Your task to perform on an android device: turn off data saver in the chrome app Image 0: 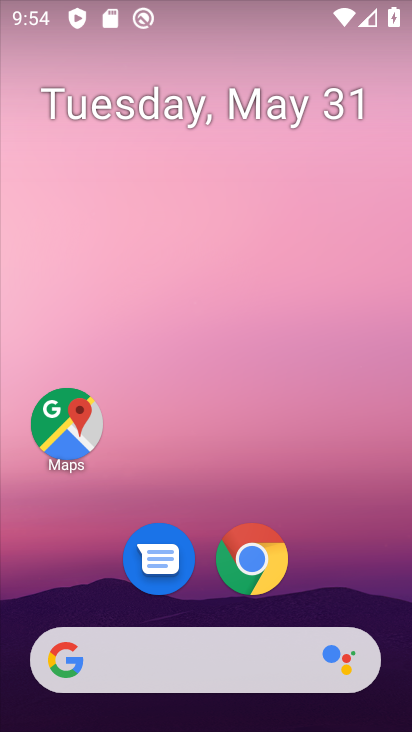
Step 0: drag from (120, 627) to (228, 51)
Your task to perform on an android device: turn off data saver in the chrome app Image 1: 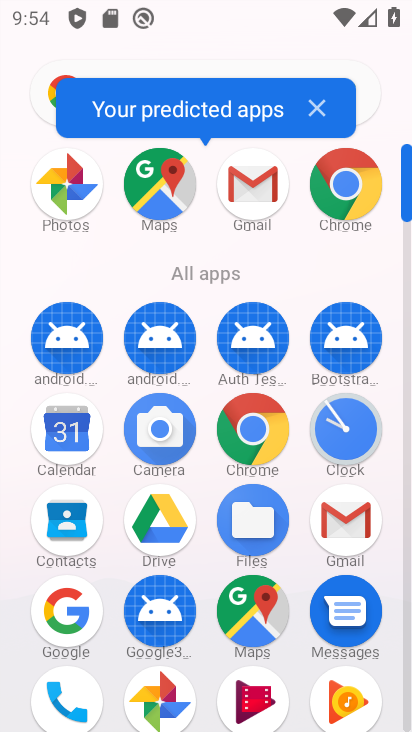
Step 1: drag from (187, 565) to (269, 213)
Your task to perform on an android device: turn off data saver in the chrome app Image 2: 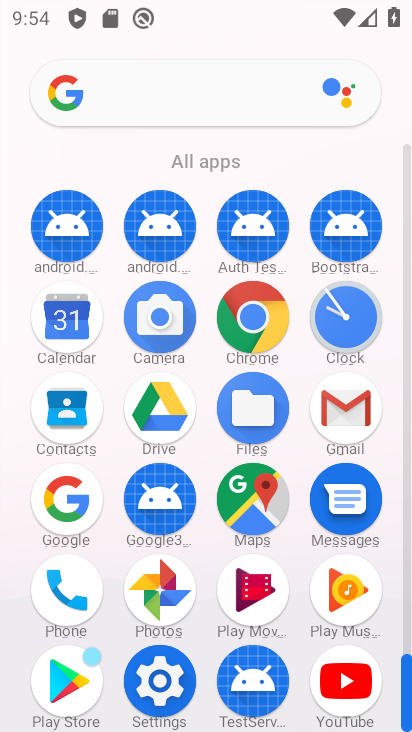
Step 2: click (253, 329)
Your task to perform on an android device: turn off data saver in the chrome app Image 3: 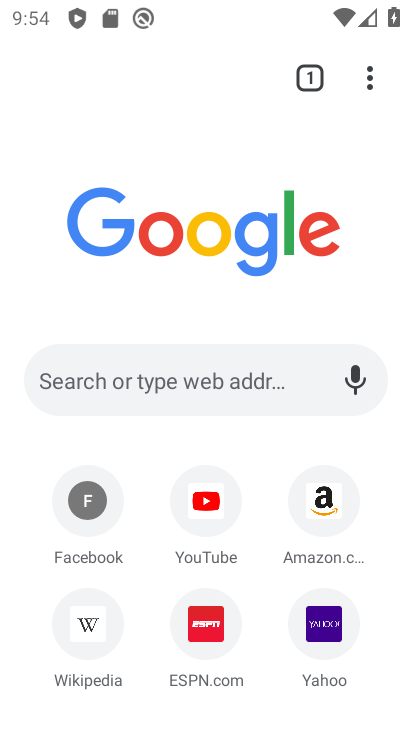
Step 3: drag from (368, 89) to (223, 629)
Your task to perform on an android device: turn off data saver in the chrome app Image 4: 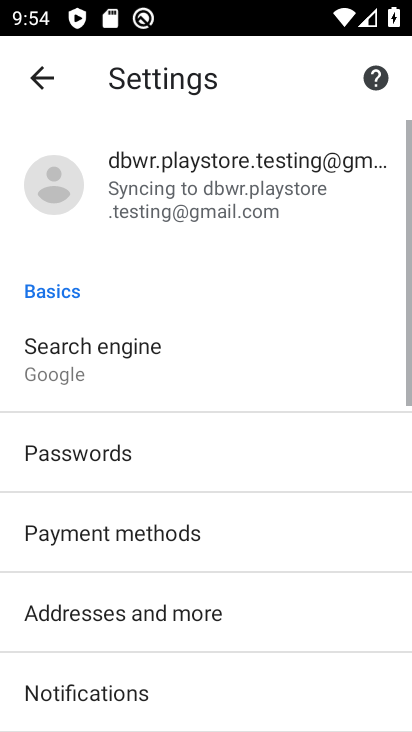
Step 4: drag from (222, 628) to (314, 180)
Your task to perform on an android device: turn off data saver in the chrome app Image 5: 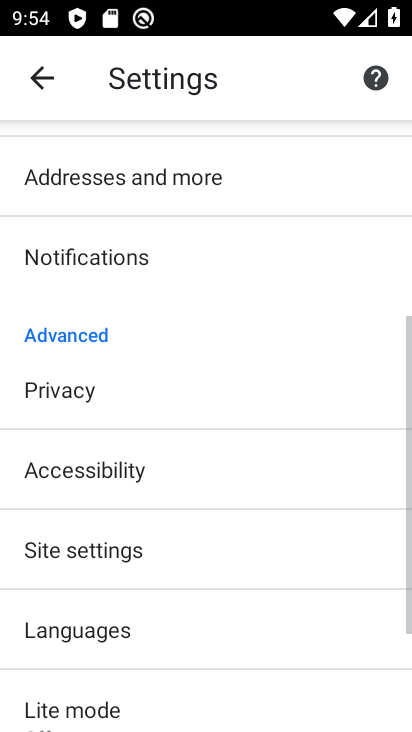
Step 5: drag from (198, 586) to (284, 218)
Your task to perform on an android device: turn off data saver in the chrome app Image 6: 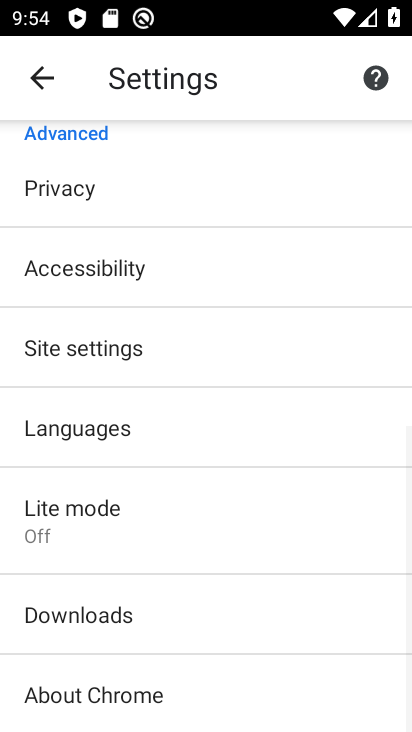
Step 6: click (178, 524)
Your task to perform on an android device: turn off data saver in the chrome app Image 7: 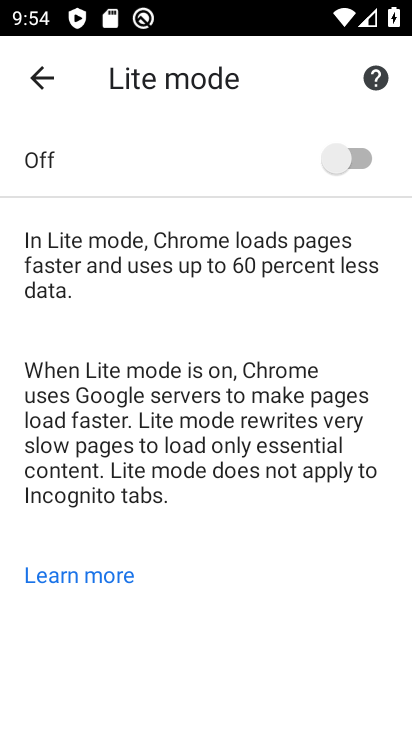
Step 7: task complete